Your task to perform on an android device: set the stopwatch Image 0: 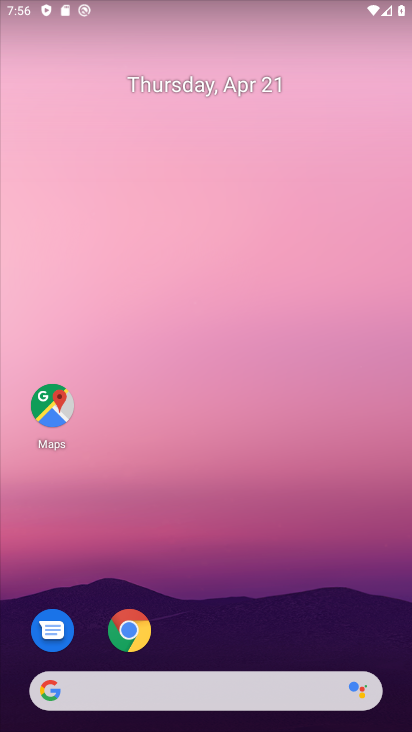
Step 0: drag from (235, 677) to (177, 169)
Your task to perform on an android device: set the stopwatch Image 1: 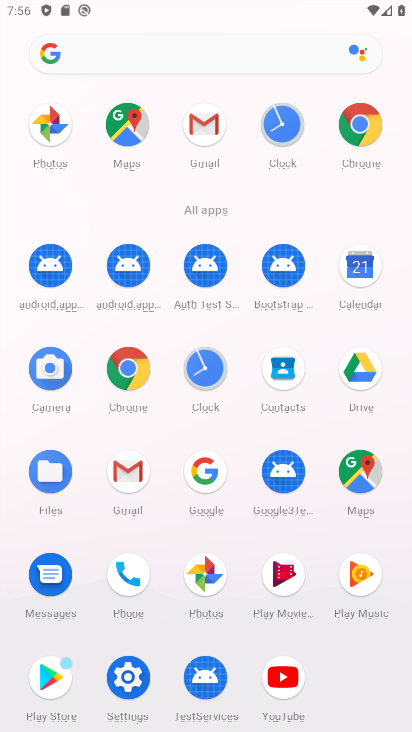
Step 1: click (290, 126)
Your task to perform on an android device: set the stopwatch Image 2: 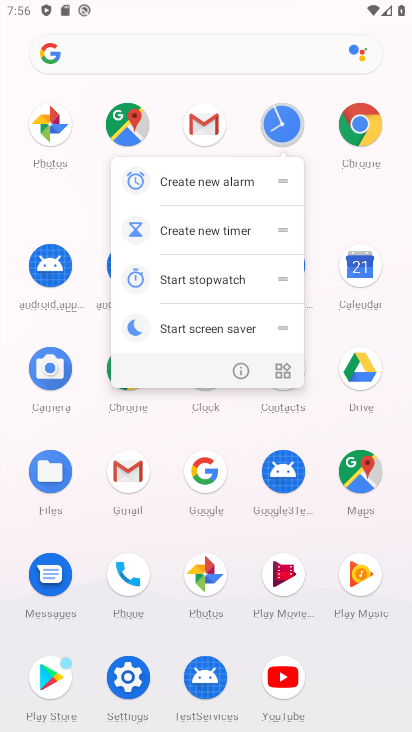
Step 2: click (290, 126)
Your task to perform on an android device: set the stopwatch Image 3: 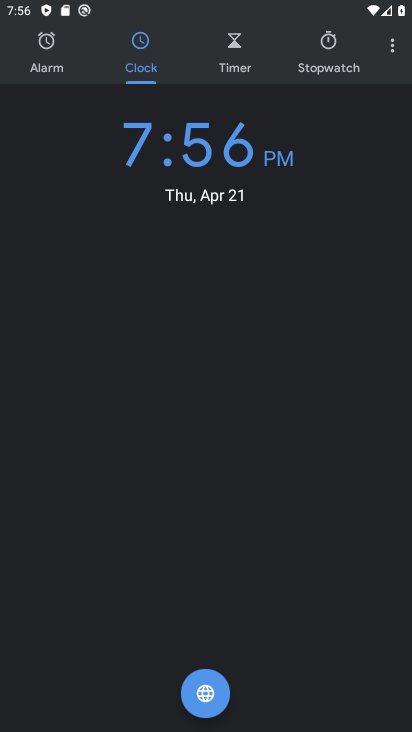
Step 3: click (321, 57)
Your task to perform on an android device: set the stopwatch Image 4: 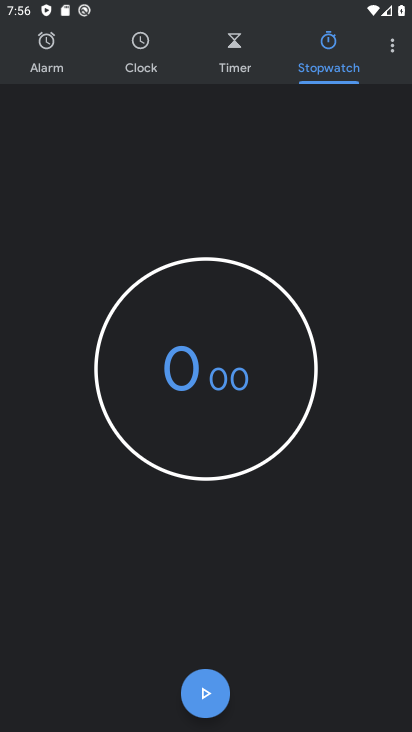
Step 4: click (217, 698)
Your task to perform on an android device: set the stopwatch Image 5: 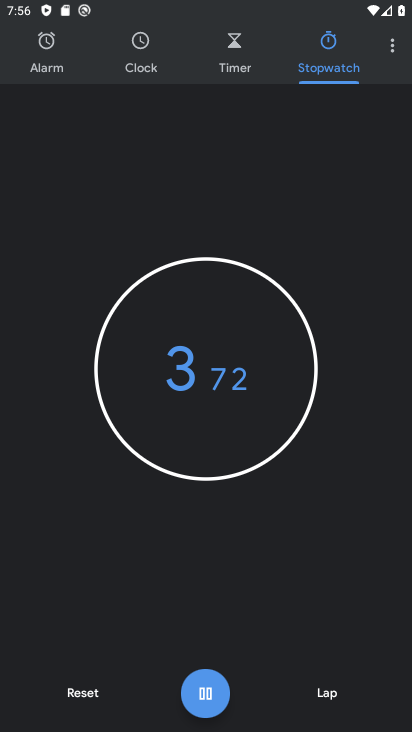
Step 5: click (217, 698)
Your task to perform on an android device: set the stopwatch Image 6: 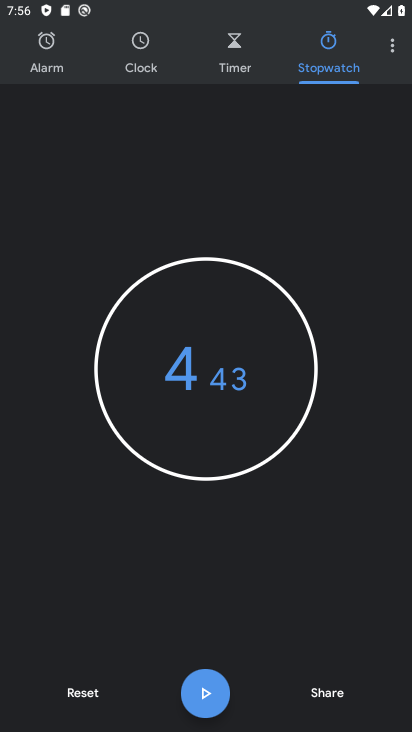
Step 6: task complete